Your task to perform on an android device: Check out the new nike air max 2020. Image 0: 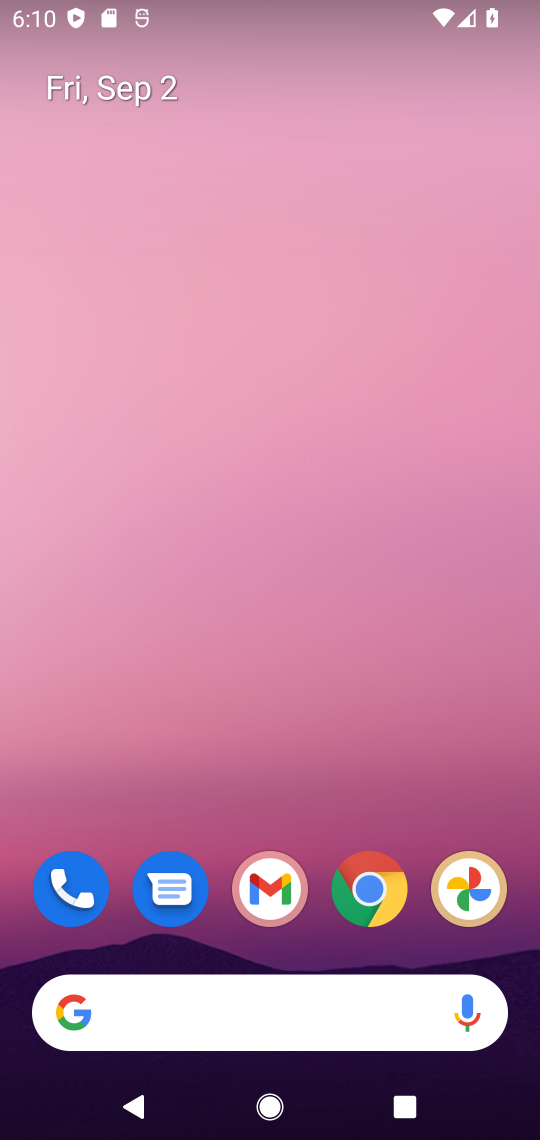
Step 0: click (283, 991)
Your task to perform on an android device: Check out the new nike air max 2020. Image 1: 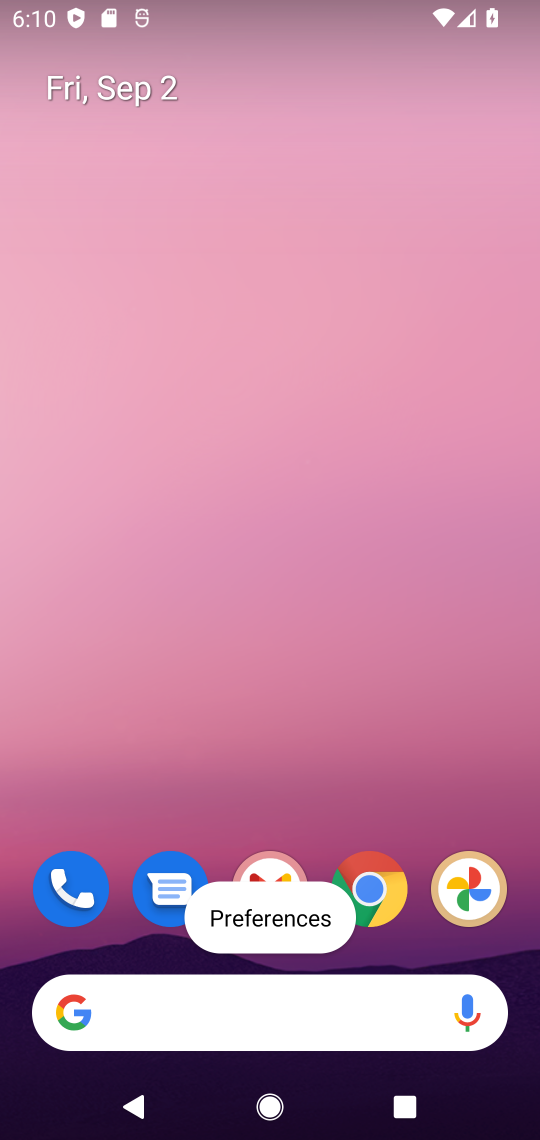
Step 1: click (306, 1007)
Your task to perform on an android device: Check out the new nike air max 2020. Image 2: 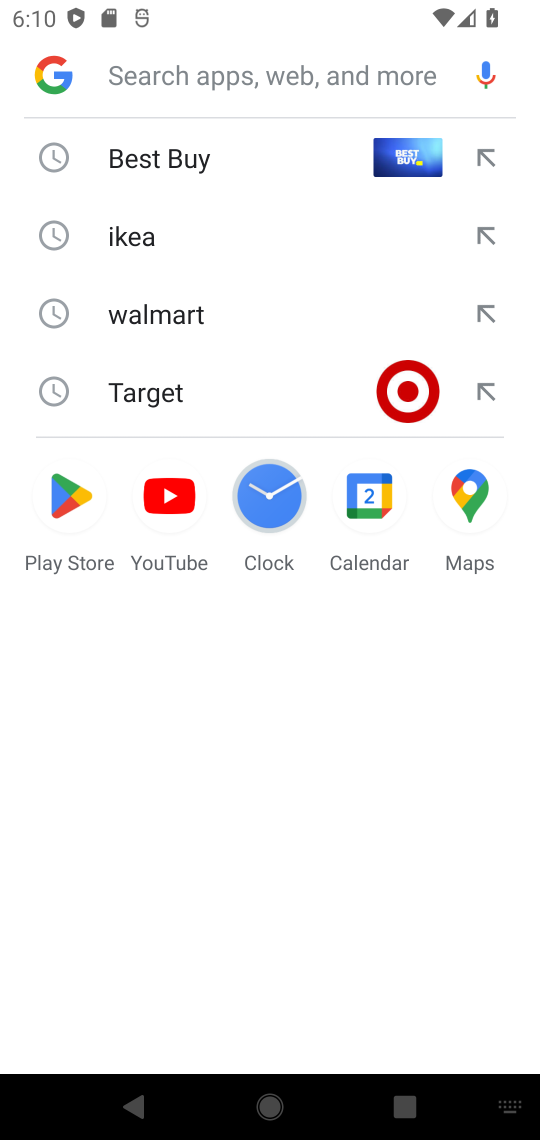
Step 2: type "new nike air max 2020"
Your task to perform on an android device: Check out the new nike air max 2020. Image 3: 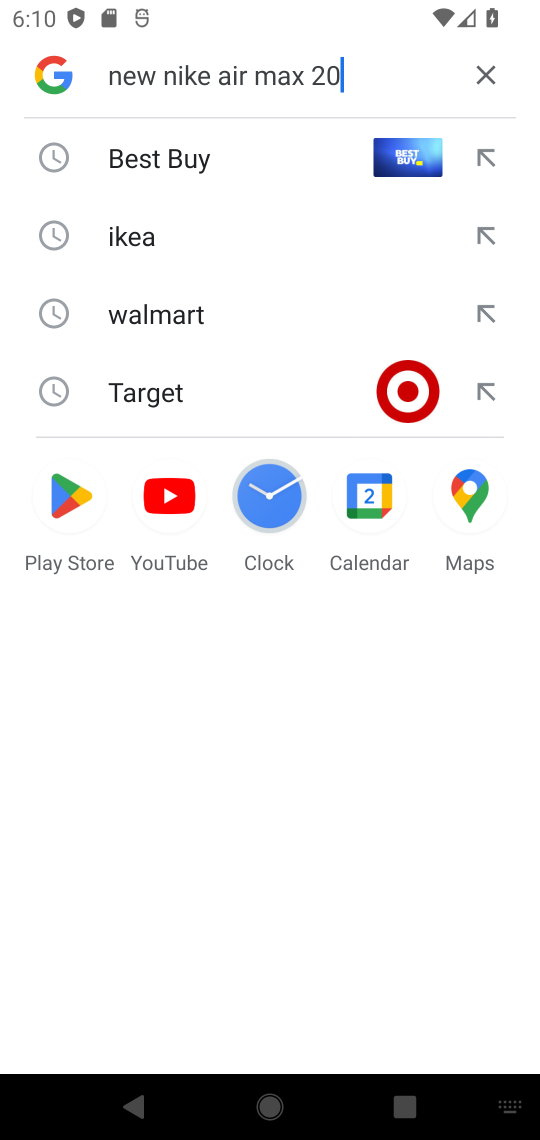
Step 3: type ""
Your task to perform on an android device: Check out the new nike air max 2020. Image 4: 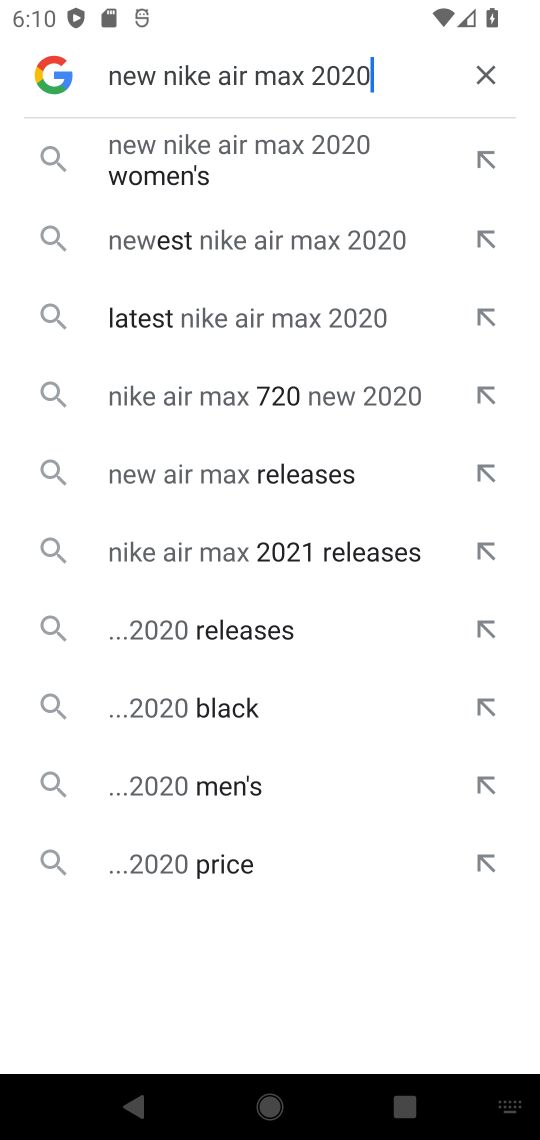
Step 4: click (237, 252)
Your task to perform on an android device: Check out the new nike air max 2020. Image 5: 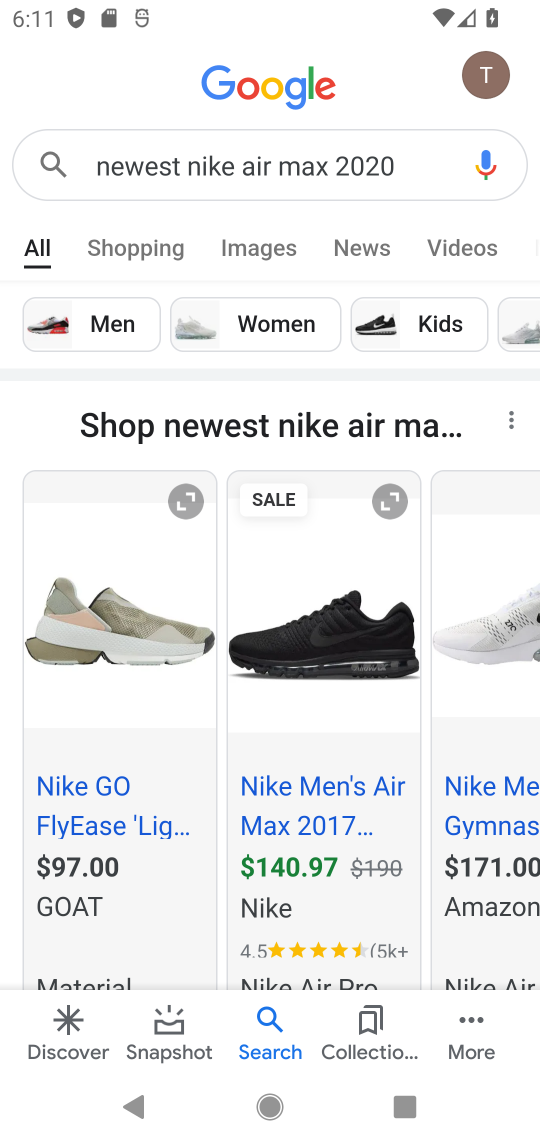
Step 5: task complete